Your task to perform on an android device: View the shopping cart on ebay.com. Search for "dell xps" on ebay.com, select the first entry, add it to the cart, then select checkout. Image 0: 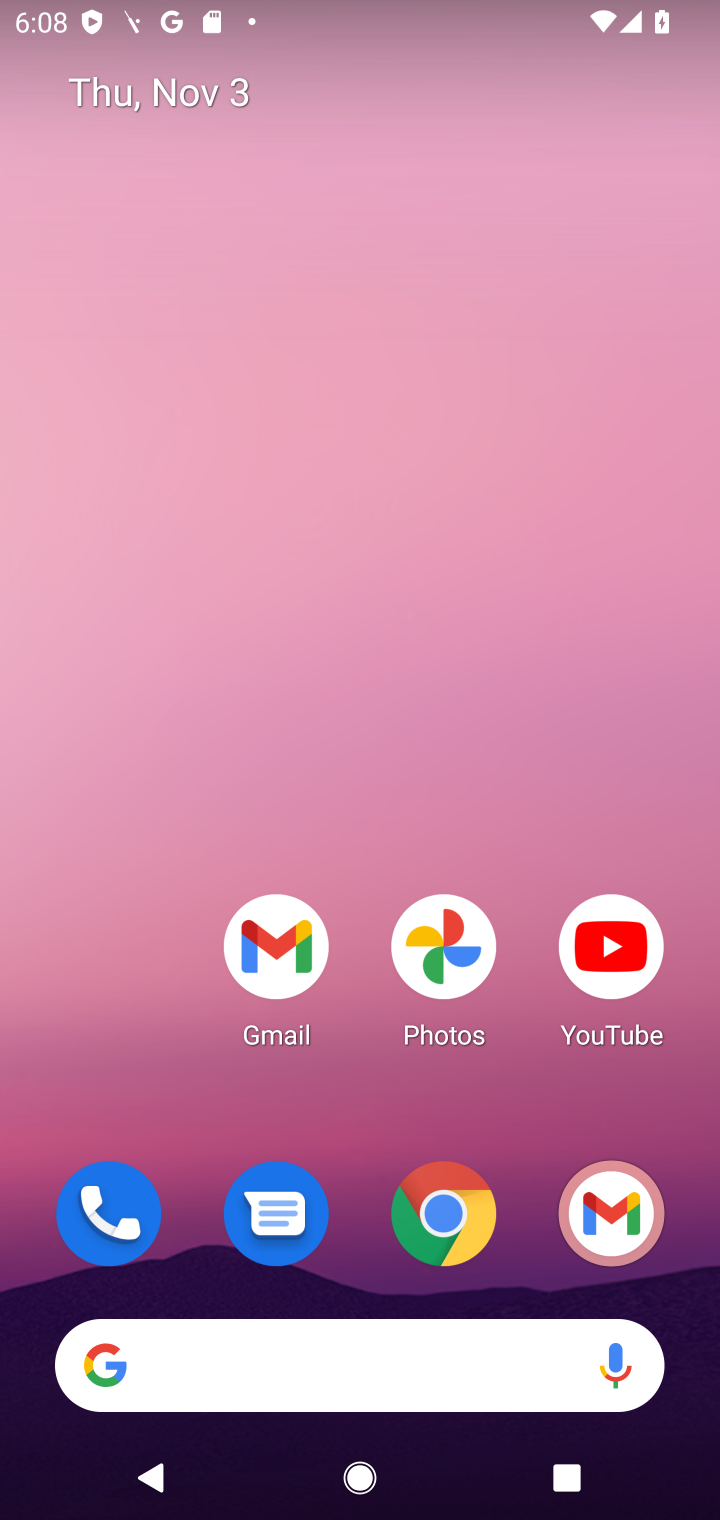
Step 0: click (460, 1215)
Your task to perform on an android device: View the shopping cart on ebay.com. Search for "dell xps" on ebay.com, select the first entry, add it to the cart, then select checkout. Image 1: 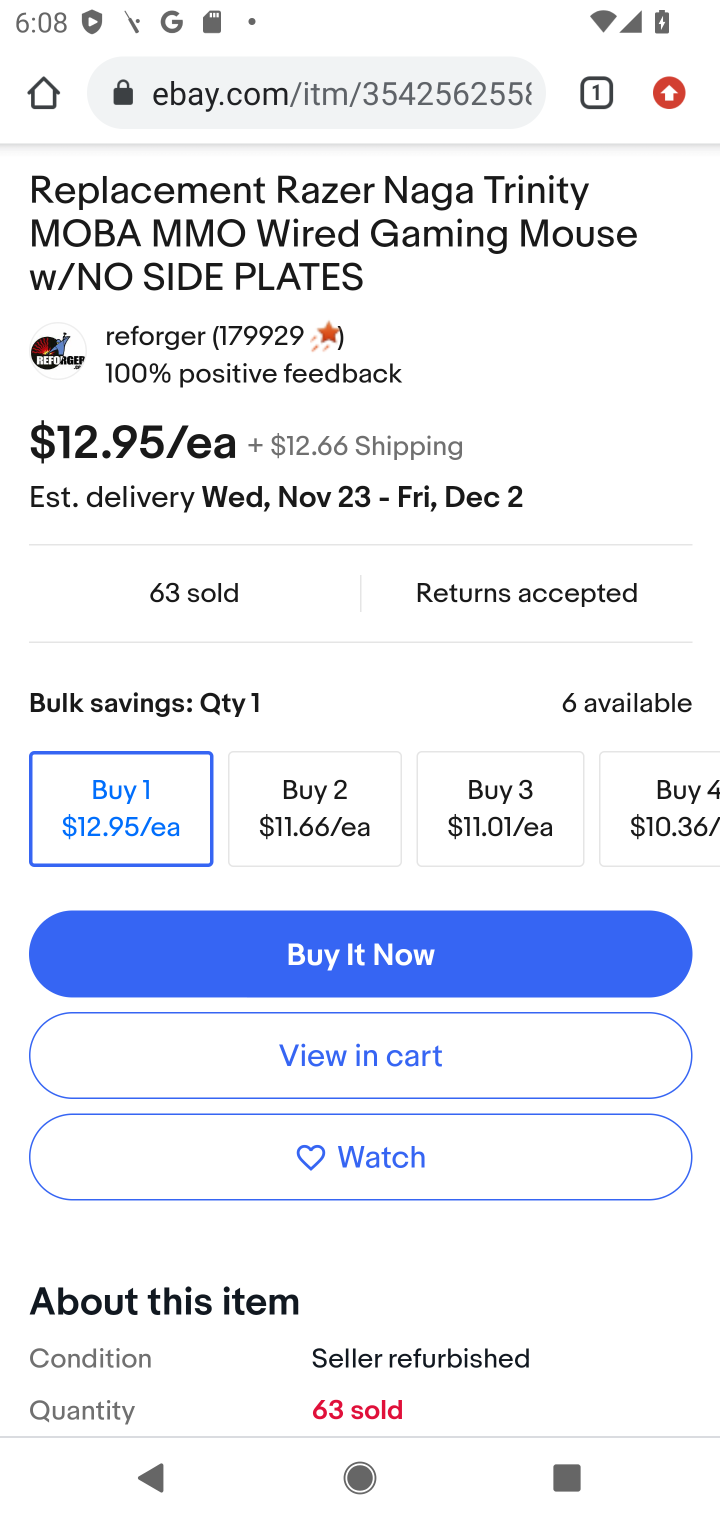
Step 1: drag from (259, 261) to (255, 1307)
Your task to perform on an android device: View the shopping cart on ebay.com. Search for "dell xps" on ebay.com, select the first entry, add it to the cart, then select checkout. Image 2: 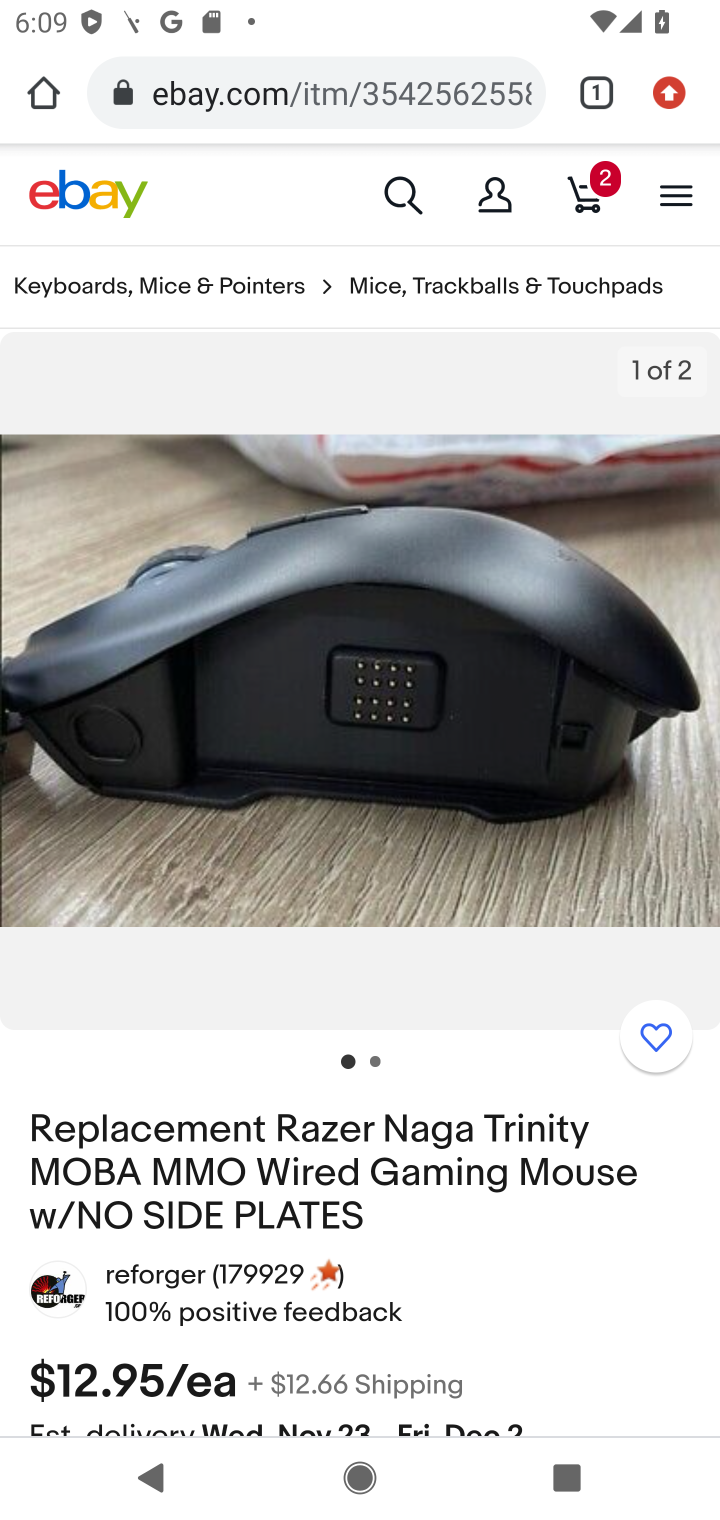
Step 2: click (403, 194)
Your task to perform on an android device: View the shopping cart on ebay.com. Search for "dell xps" on ebay.com, select the first entry, add it to the cart, then select checkout. Image 3: 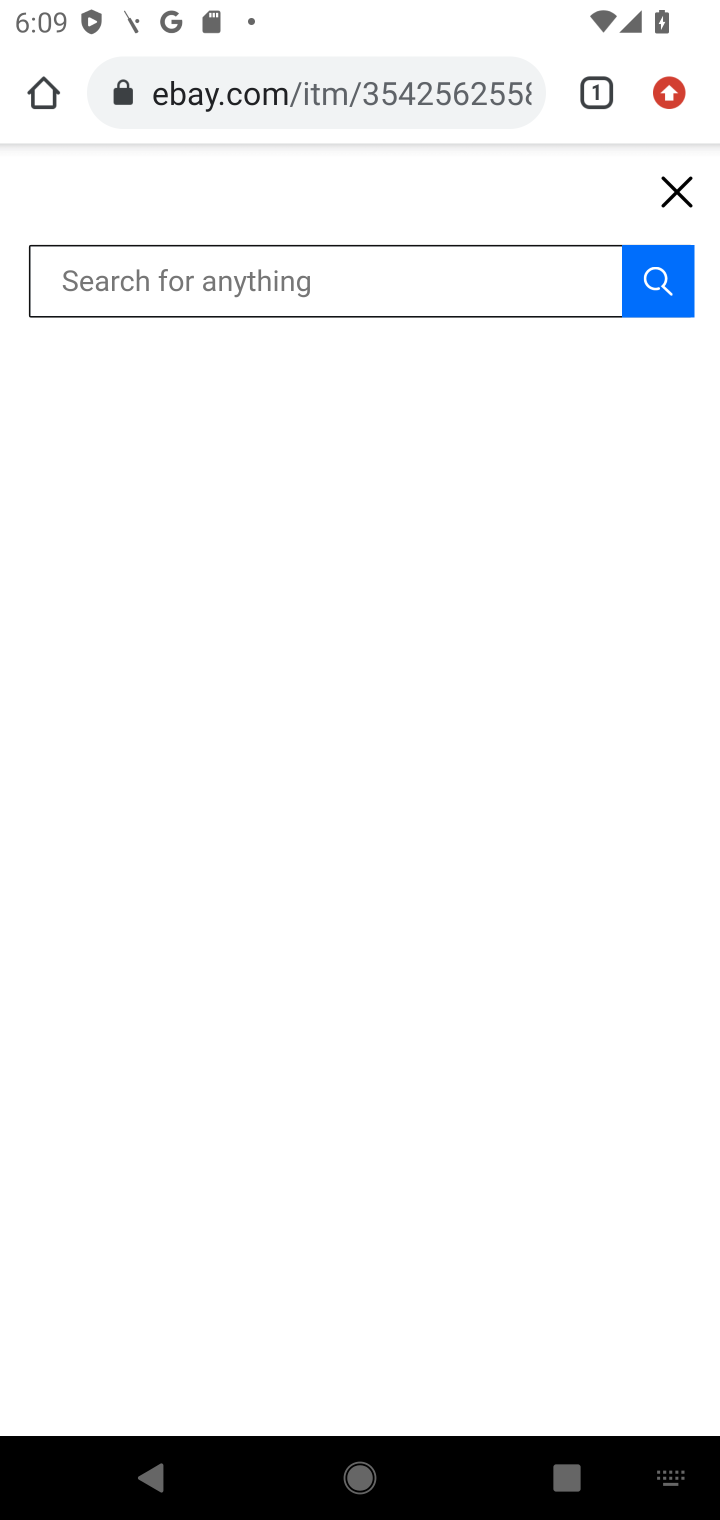
Step 3: type "d"
Your task to perform on an android device: View the shopping cart on ebay.com. Search for "dell xps" on ebay.com, select the first entry, add it to the cart, then select checkout. Image 4: 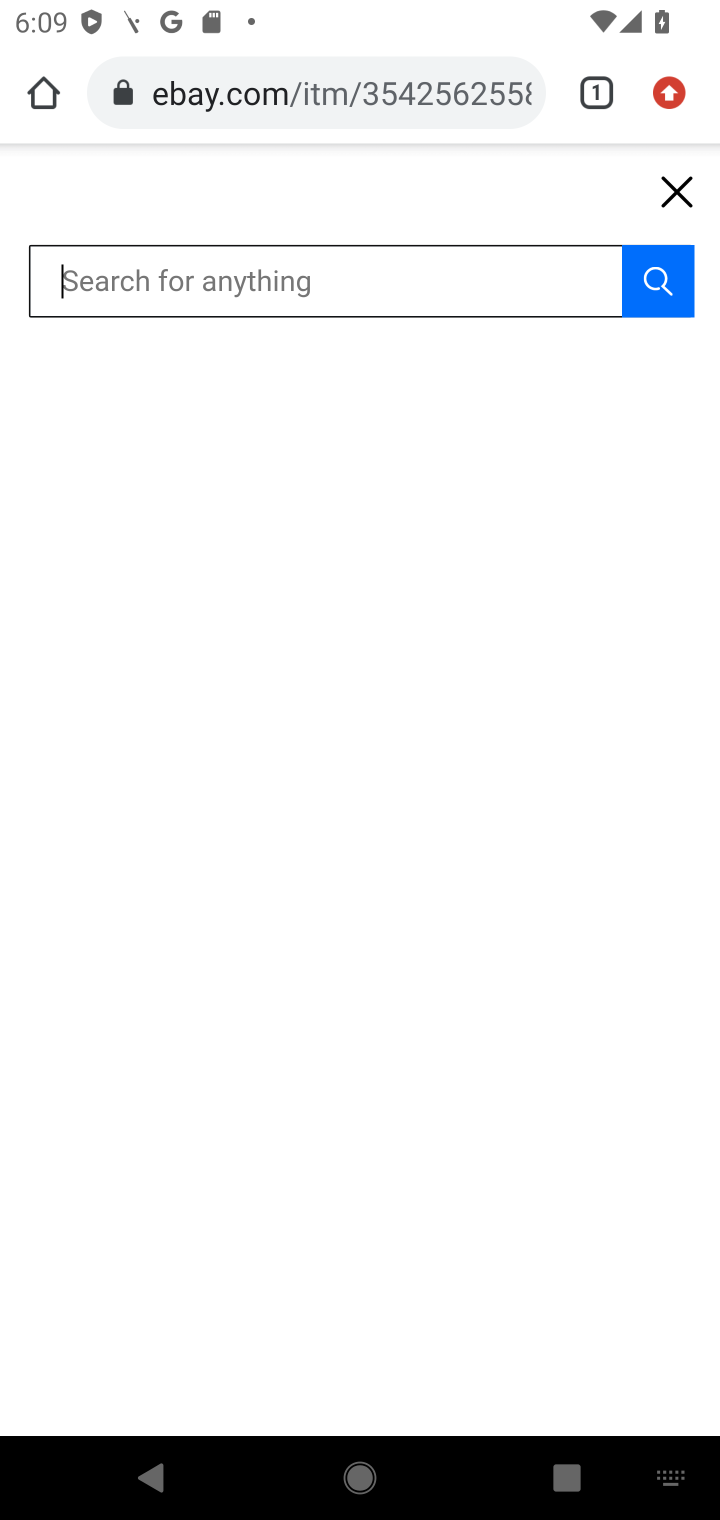
Step 4: click (670, 201)
Your task to perform on an android device: View the shopping cart on ebay.com. Search for "dell xps" on ebay.com, select the first entry, add it to the cart, then select checkout. Image 5: 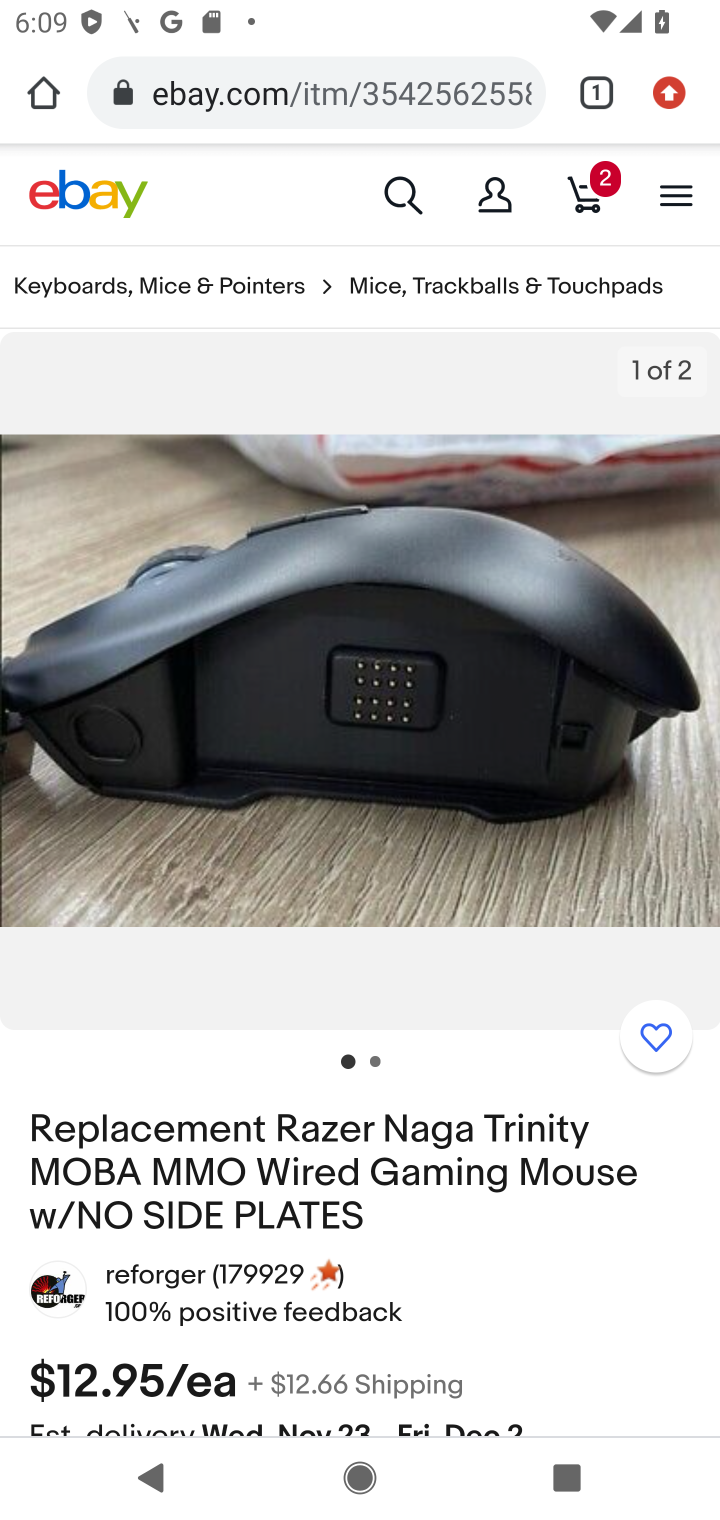
Step 5: click (593, 178)
Your task to perform on an android device: View the shopping cart on ebay.com. Search for "dell xps" on ebay.com, select the first entry, add it to the cart, then select checkout. Image 6: 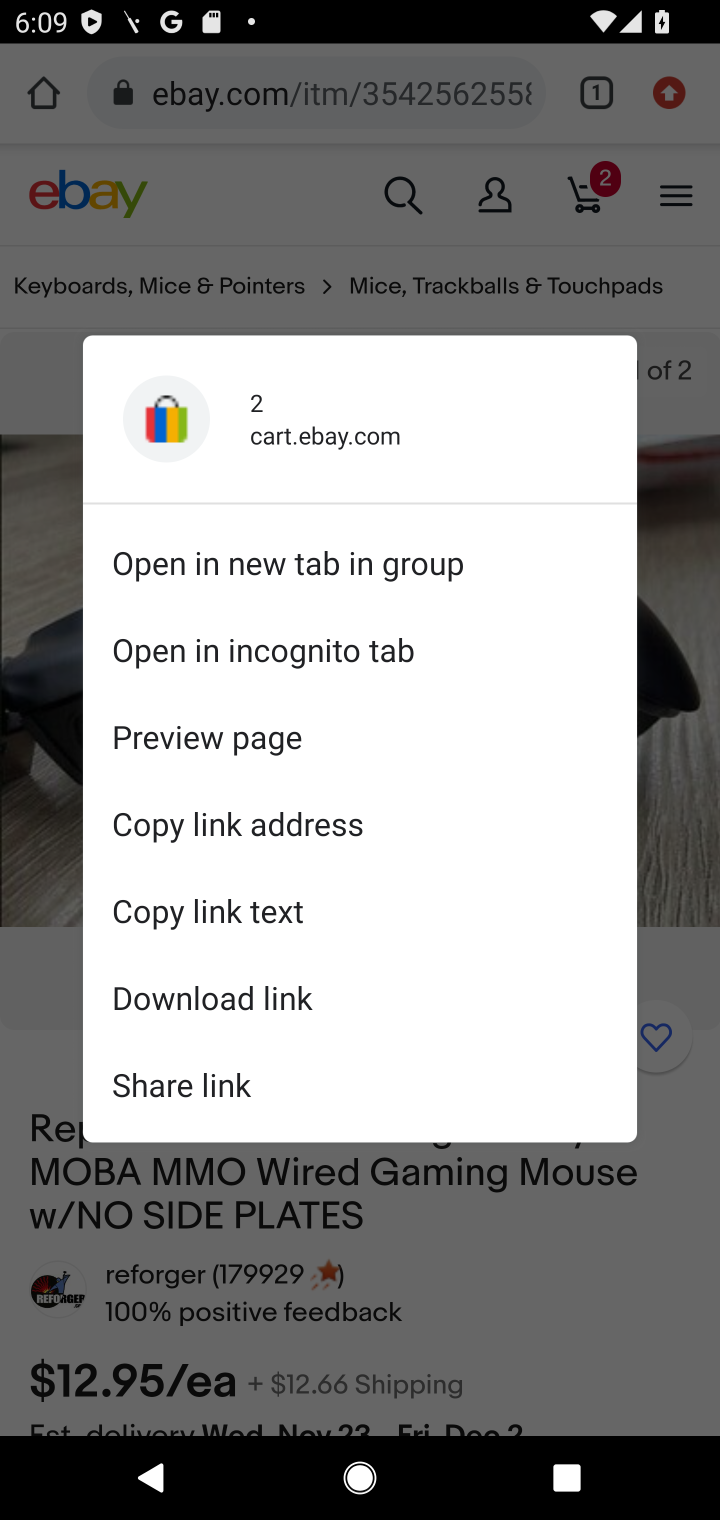
Step 6: click (591, 193)
Your task to perform on an android device: View the shopping cart on ebay.com. Search for "dell xps" on ebay.com, select the first entry, add it to the cart, then select checkout. Image 7: 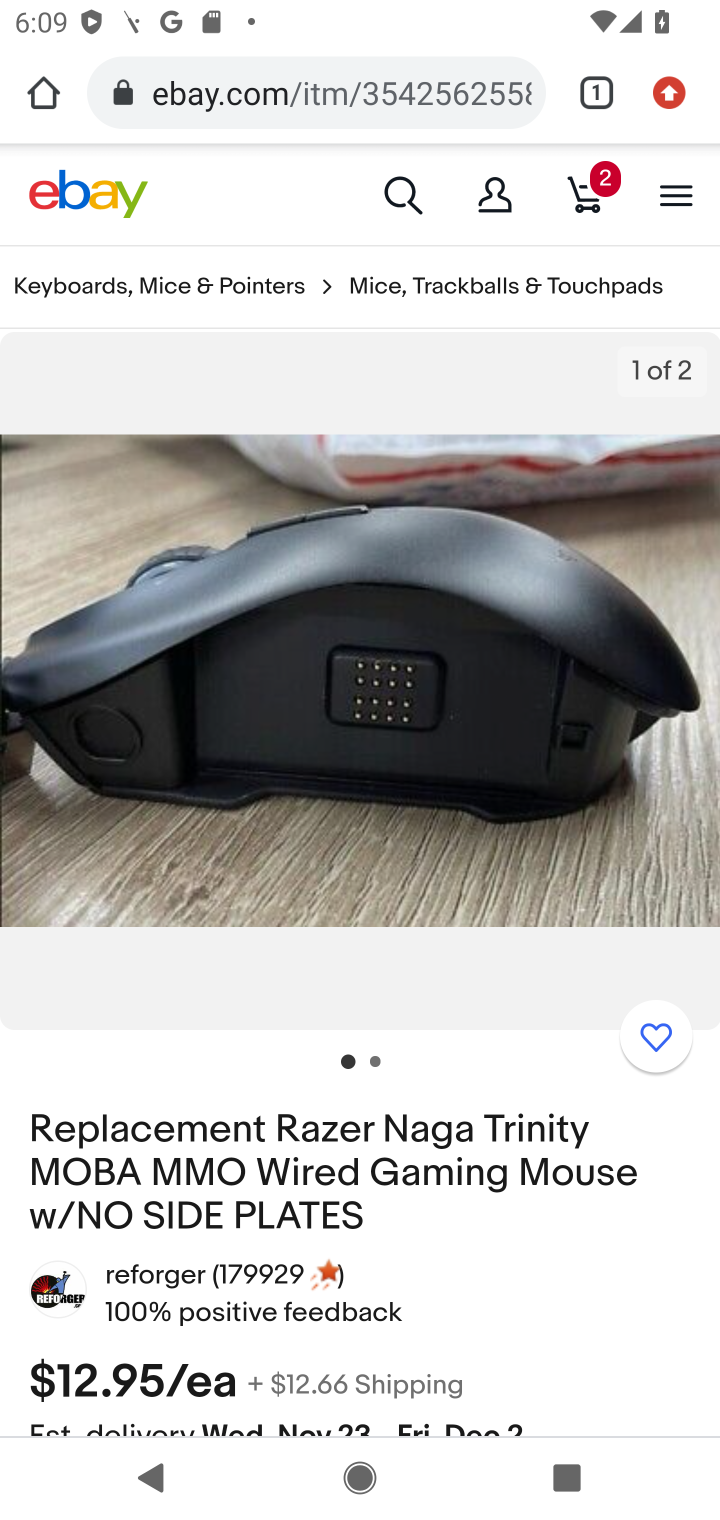
Step 7: click (595, 200)
Your task to perform on an android device: View the shopping cart on ebay.com. Search for "dell xps" on ebay.com, select the first entry, add it to the cart, then select checkout. Image 8: 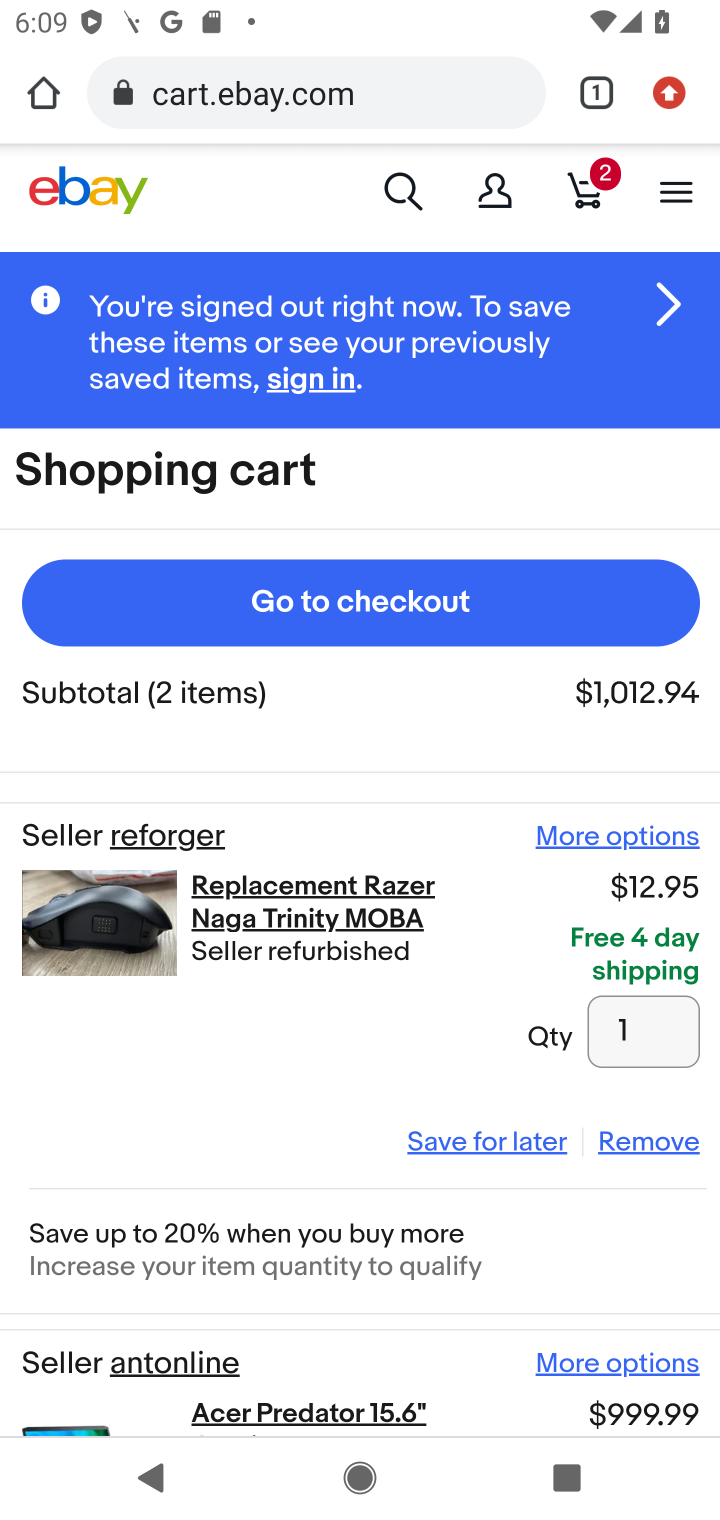
Step 8: click (387, 193)
Your task to perform on an android device: View the shopping cart on ebay.com. Search for "dell xps" on ebay.com, select the first entry, add it to the cart, then select checkout. Image 9: 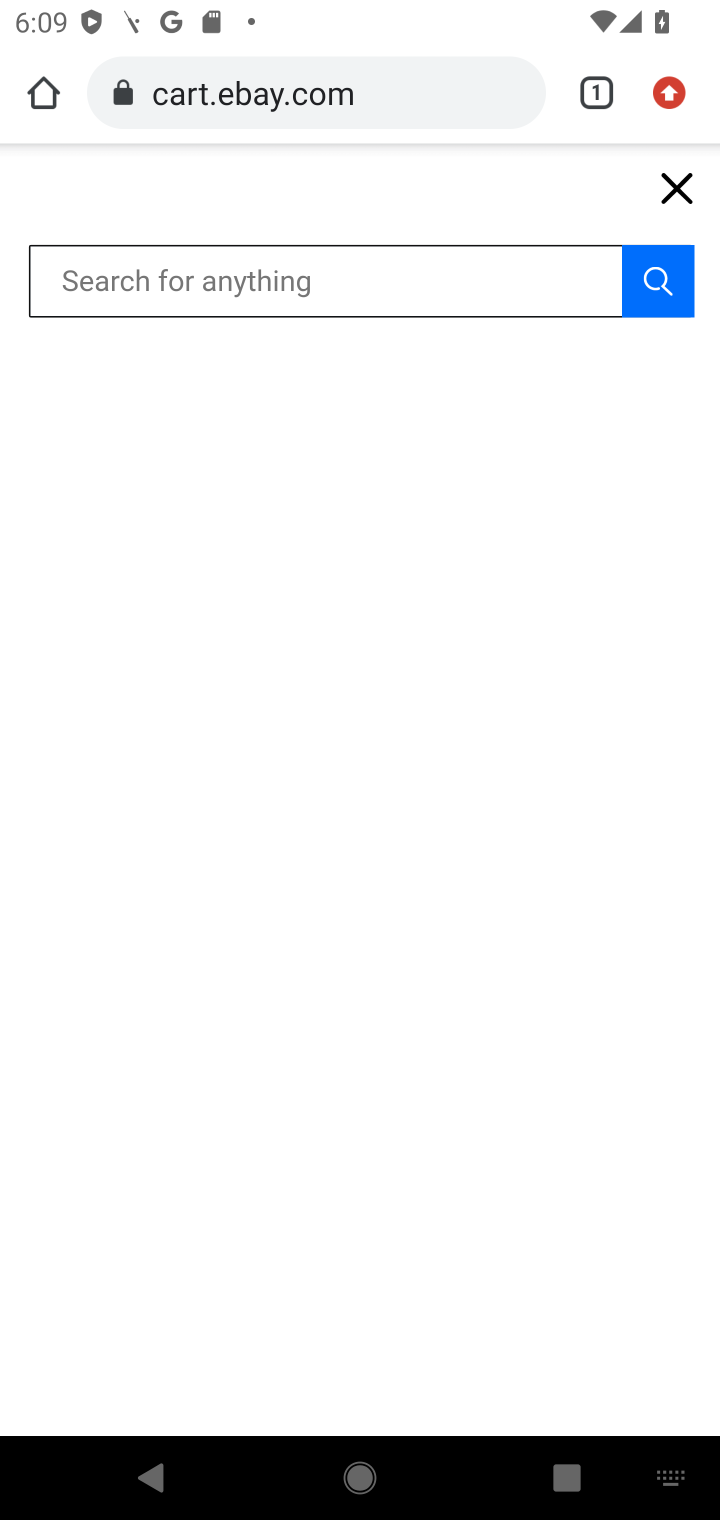
Step 9: type "dell xps"
Your task to perform on an android device: View the shopping cart on ebay.com. Search for "dell xps" on ebay.com, select the first entry, add it to the cart, then select checkout. Image 10: 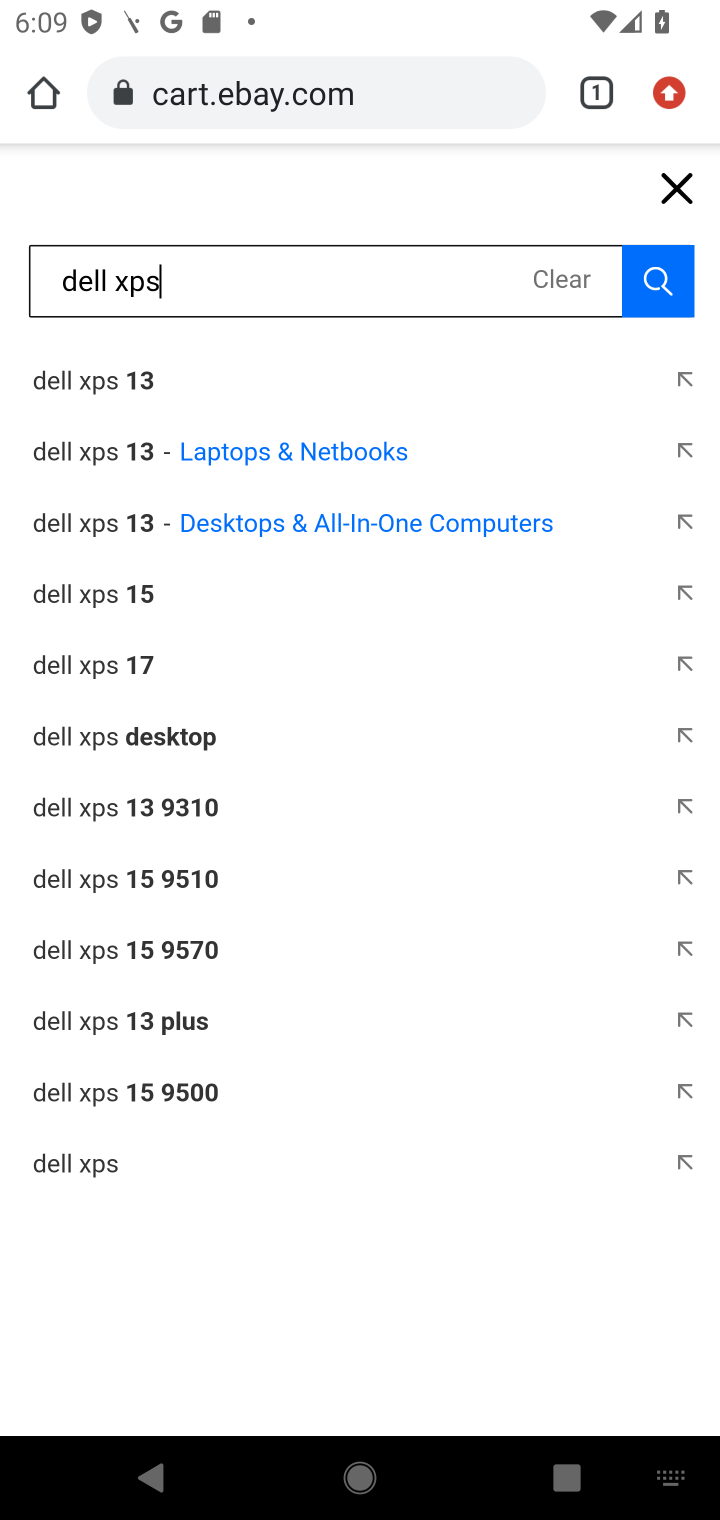
Step 10: click (645, 281)
Your task to perform on an android device: View the shopping cart on ebay.com. Search for "dell xps" on ebay.com, select the first entry, add it to the cart, then select checkout. Image 11: 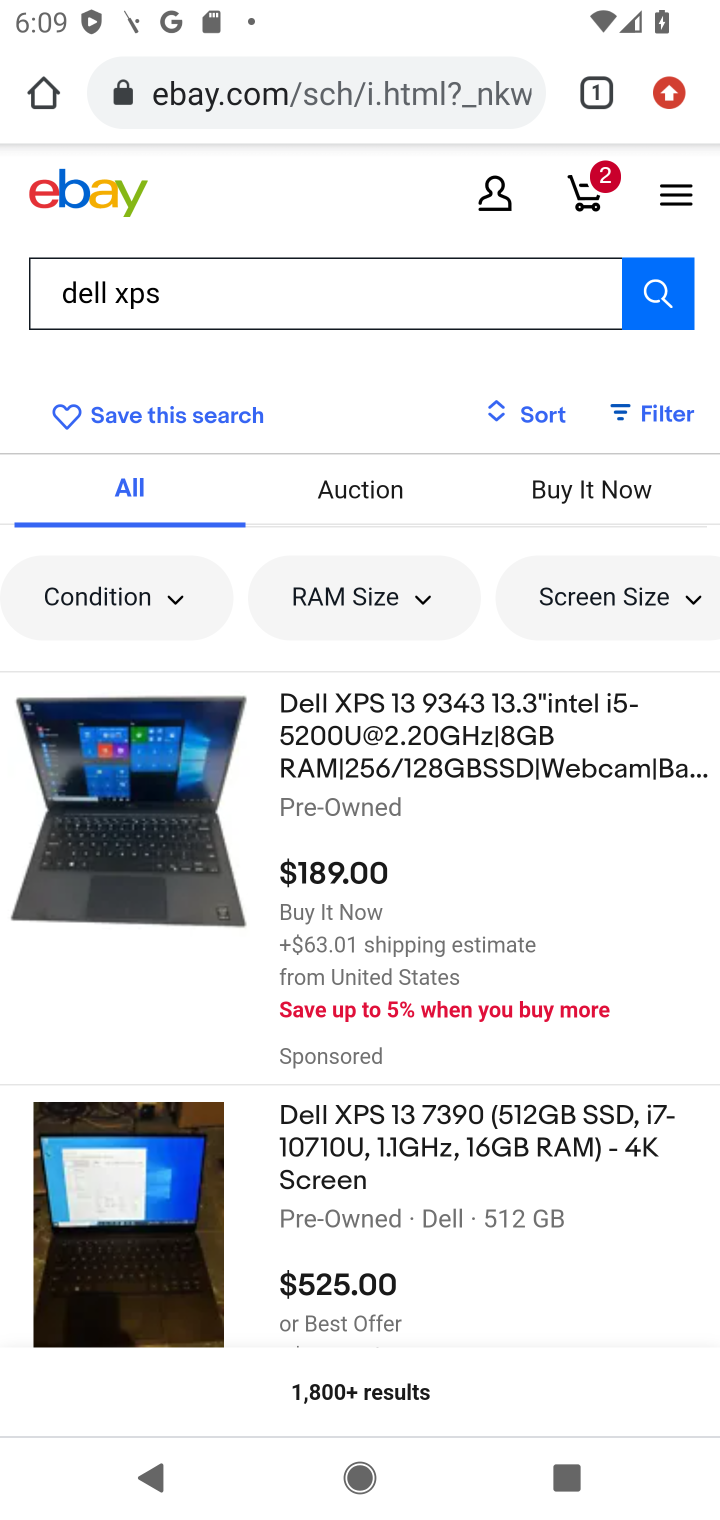
Step 11: click (317, 855)
Your task to perform on an android device: View the shopping cart on ebay.com. Search for "dell xps" on ebay.com, select the first entry, add it to the cart, then select checkout. Image 12: 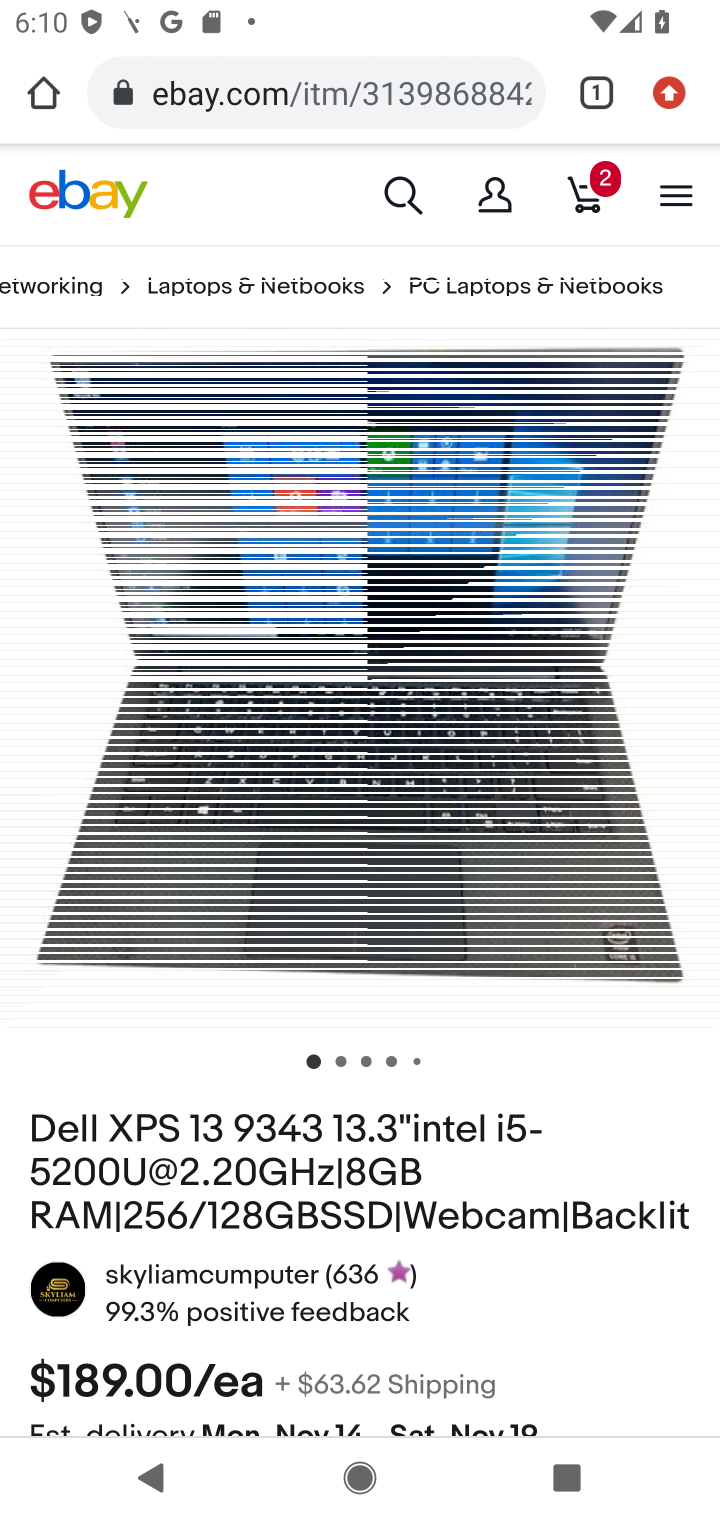
Step 12: drag from (342, 1221) to (480, 482)
Your task to perform on an android device: View the shopping cart on ebay.com. Search for "dell xps" on ebay.com, select the first entry, add it to the cart, then select checkout. Image 13: 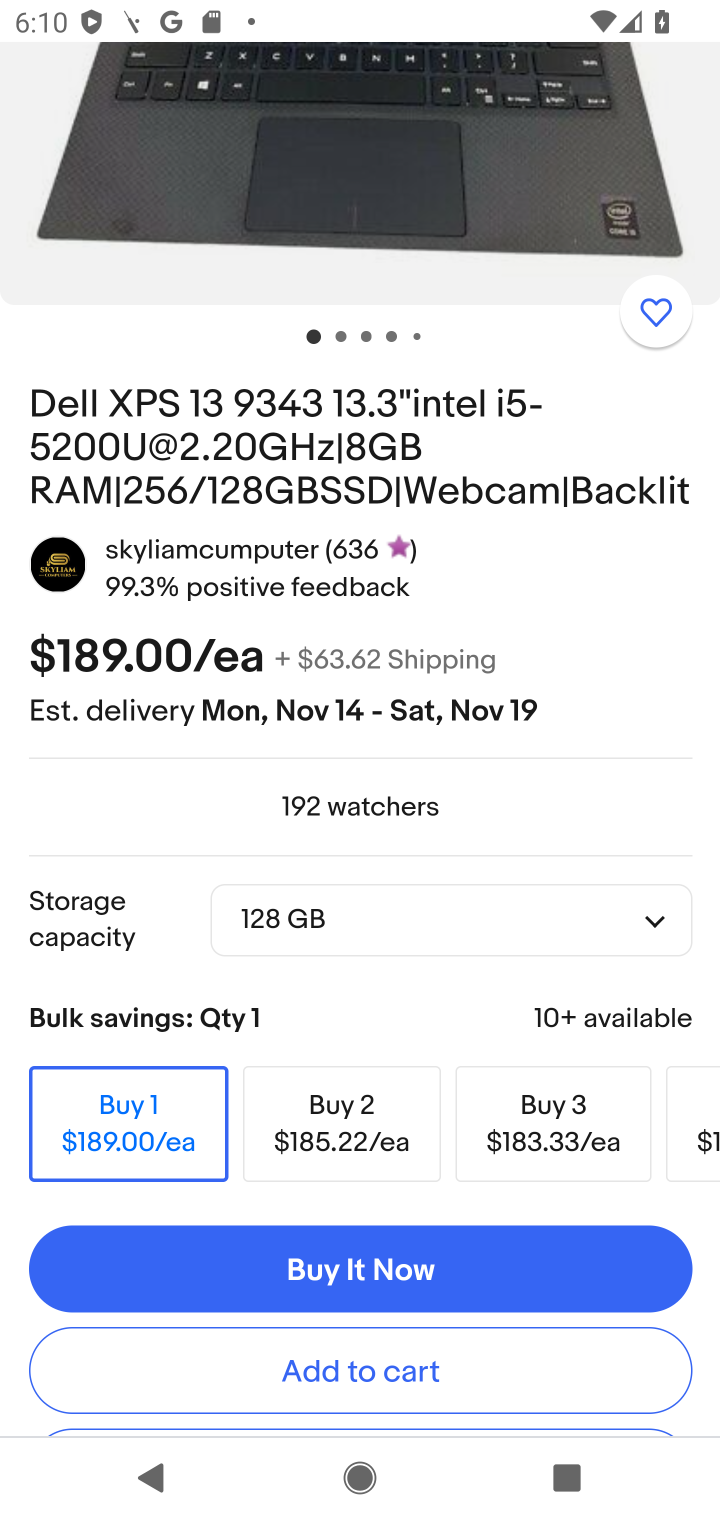
Step 13: click (338, 1364)
Your task to perform on an android device: View the shopping cart on ebay.com. Search for "dell xps" on ebay.com, select the first entry, add it to the cart, then select checkout. Image 14: 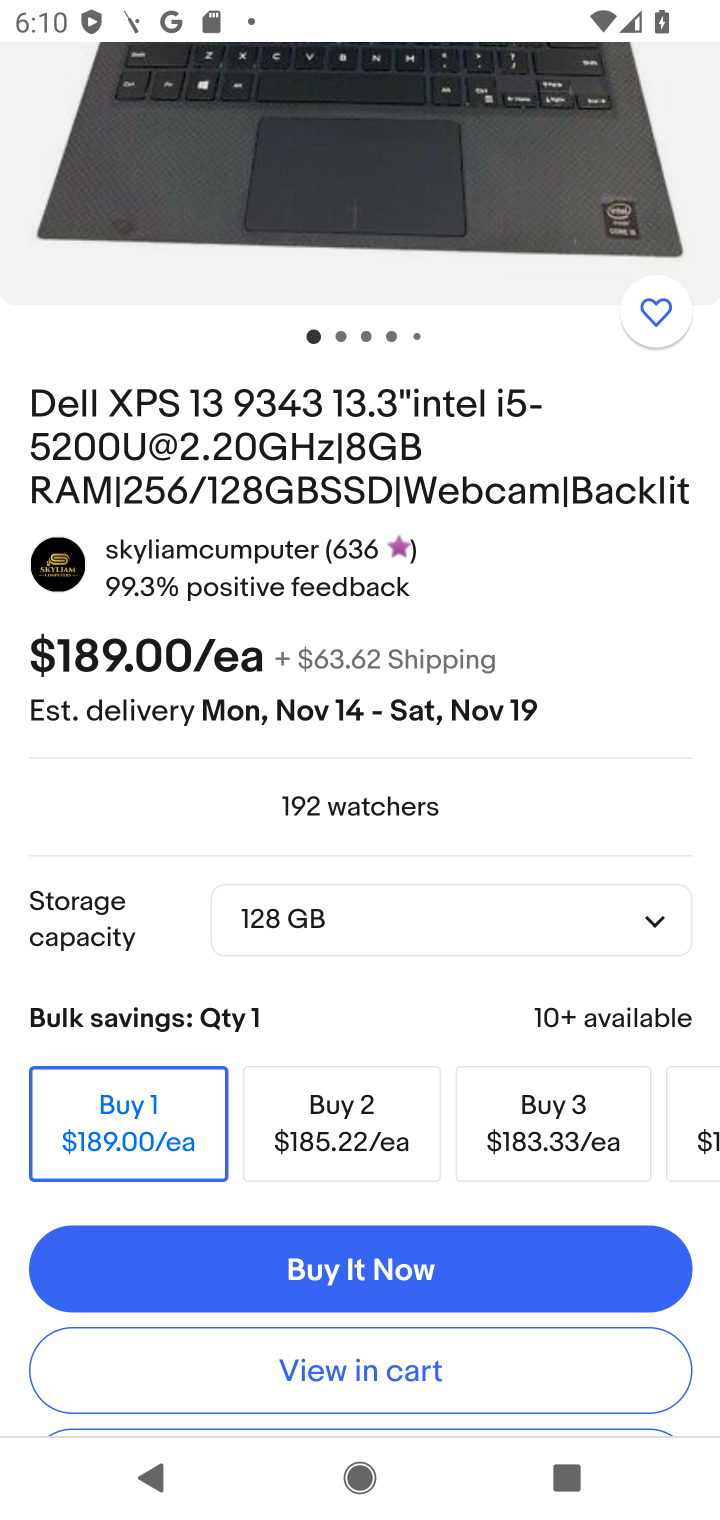
Step 14: click (353, 1372)
Your task to perform on an android device: View the shopping cart on ebay.com. Search for "dell xps" on ebay.com, select the first entry, add it to the cart, then select checkout. Image 15: 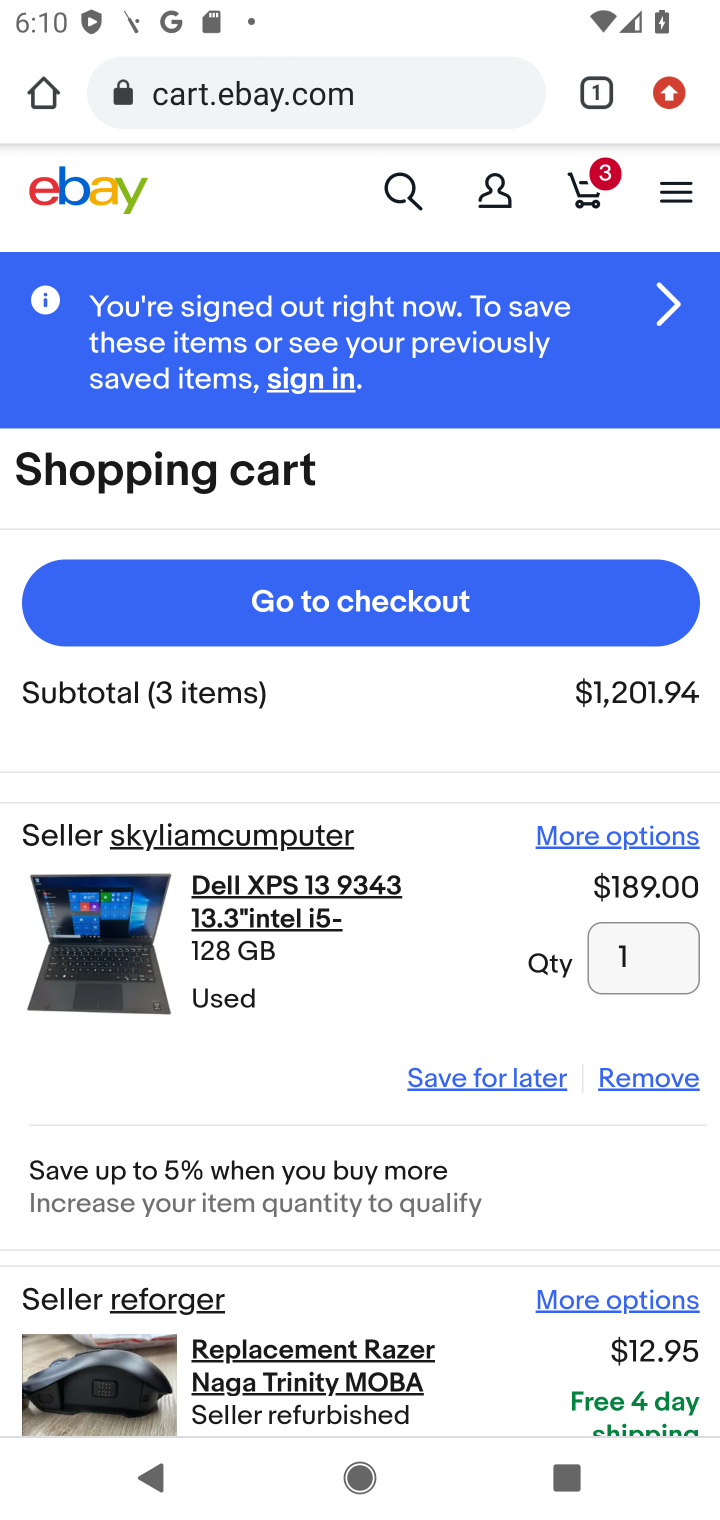
Step 15: click (357, 608)
Your task to perform on an android device: View the shopping cart on ebay.com. Search for "dell xps" on ebay.com, select the first entry, add it to the cart, then select checkout. Image 16: 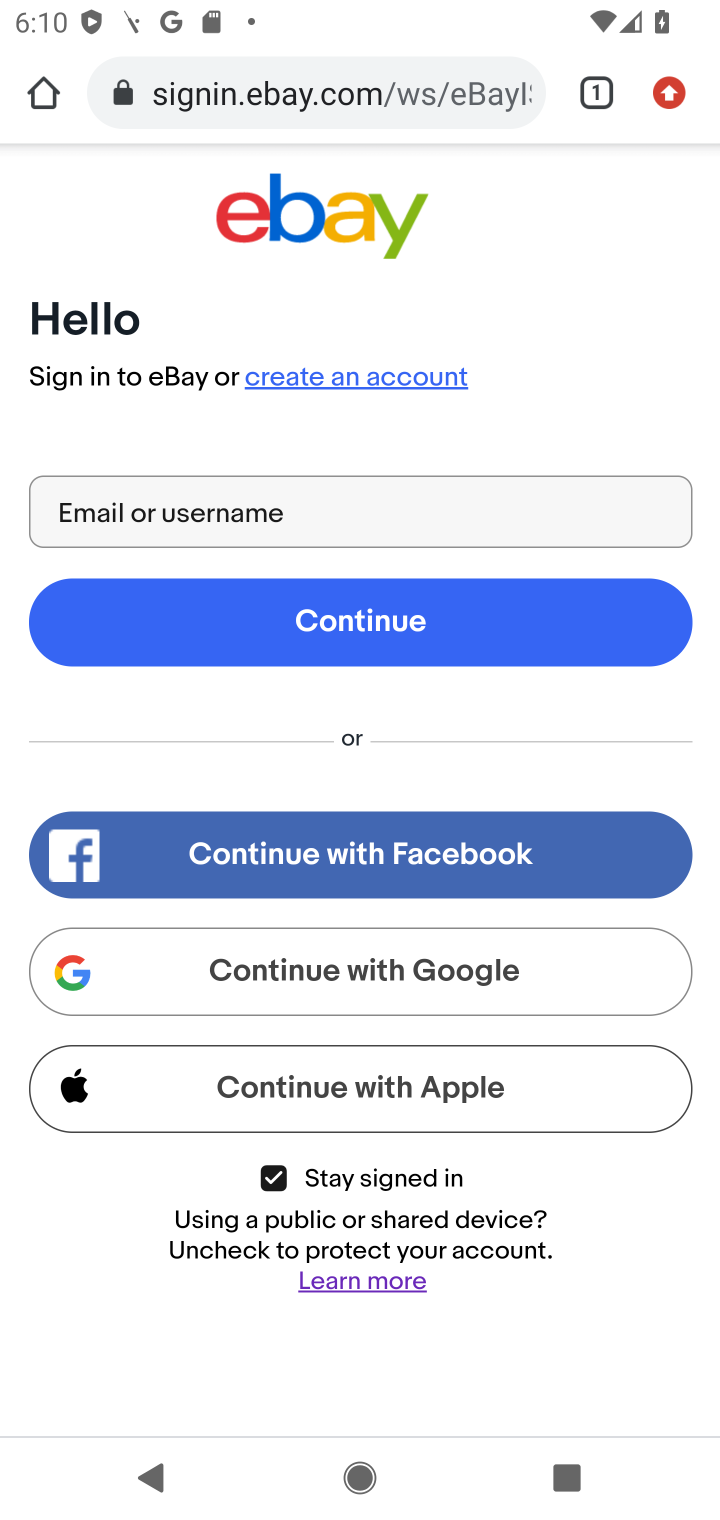
Step 16: task complete